Your task to perform on an android device: Open maps Image 0: 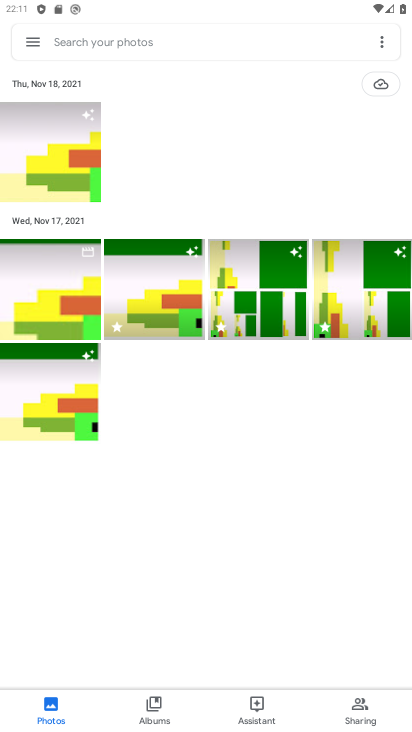
Step 0: press home button
Your task to perform on an android device: Open maps Image 1: 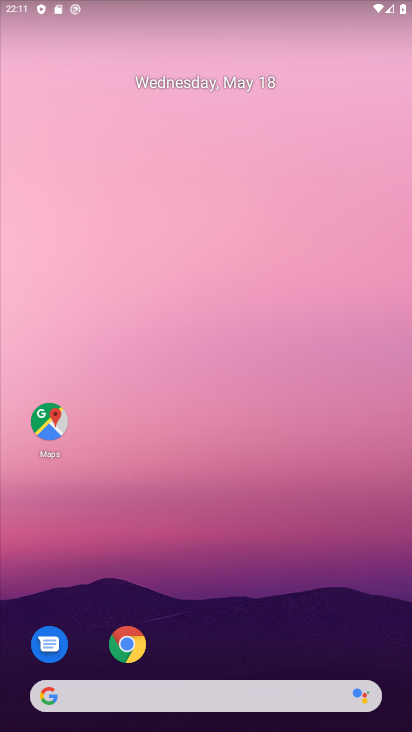
Step 1: click (45, 425)
Your task to perform on an android device: Open maps Image 2: 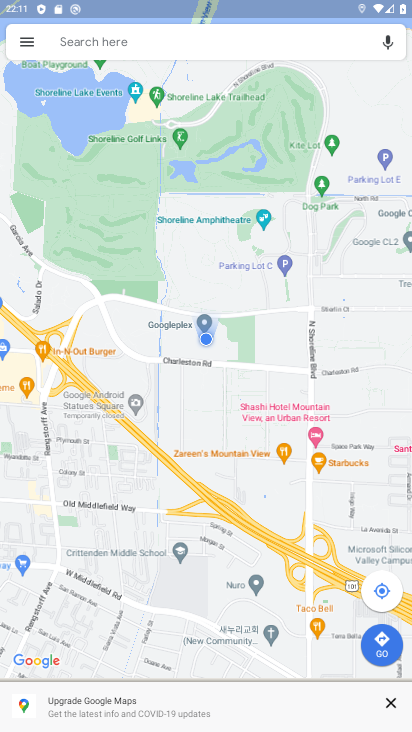
Step 2: task complete